Your task to perform on an android device: Open ESPN.com Image 0: 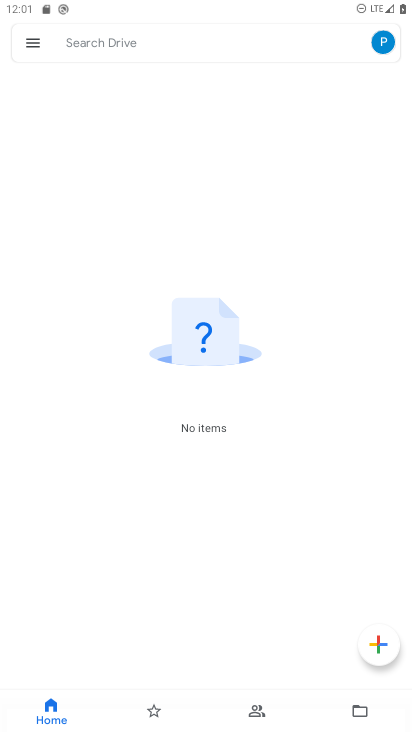
Step 0: press home button
Your task to perform on an android device: Open ESPN.com Image 1: 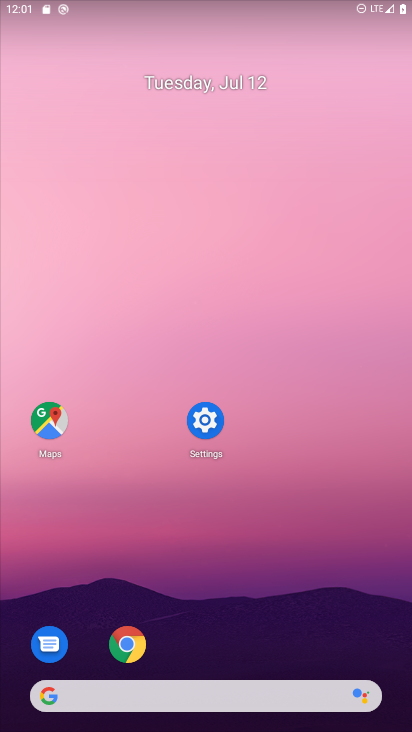
Step 1: click (128, 649)
Your task to perform on an android device: Open ESPN.com Image 2: 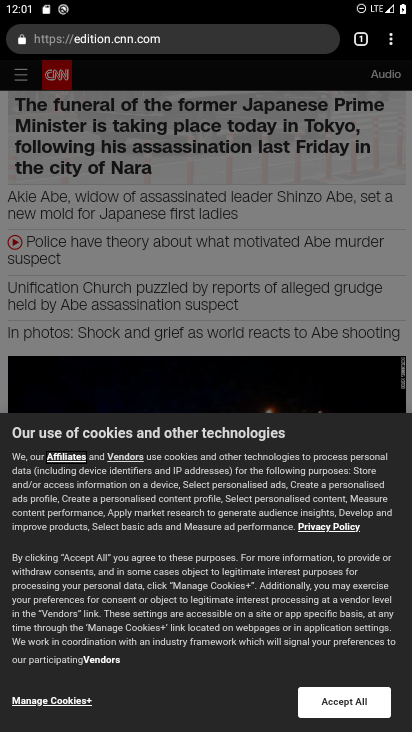
Step 2: click (199, 33)
Your task to perform on an android device: Open ESPN.com Image 3: 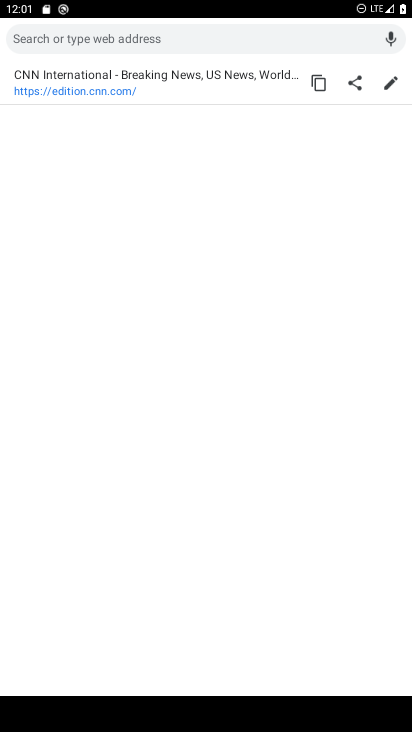
Step 3: type "ESPN.com"
Your task to perform on an android device: Open ESPN.com Image 4: 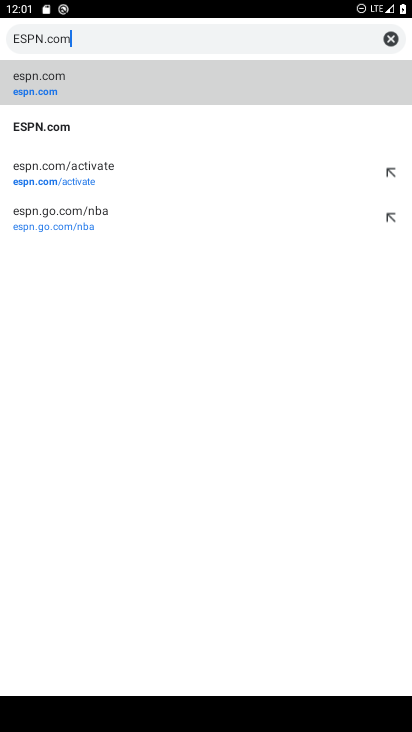
Step 4: click (84, 125)
Your task to perform on an android device: Open ESPN.com Image 5: 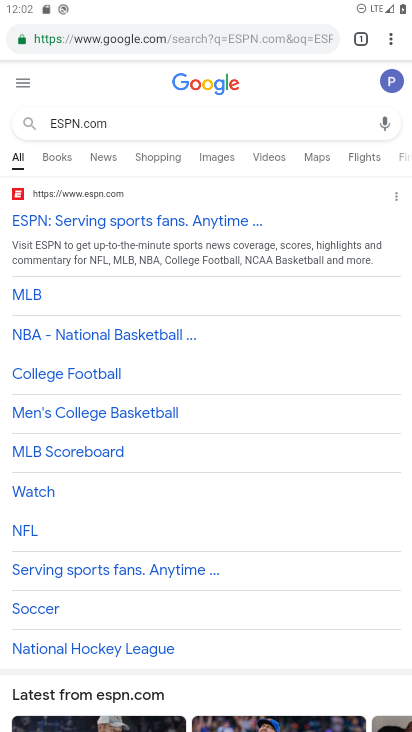
Step 5: task complete